Your task to perform on an android device: toggle translation in the chrome app Image 0: 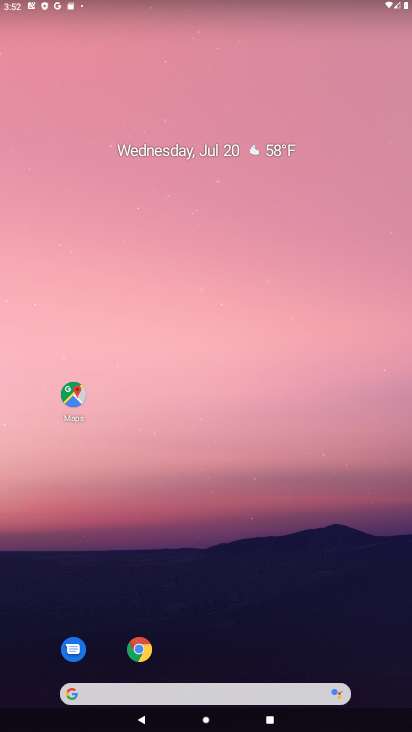
Step 0: click (143, 650)
Your task to perform on an android device: toggle translation in the chrome app Image 1: 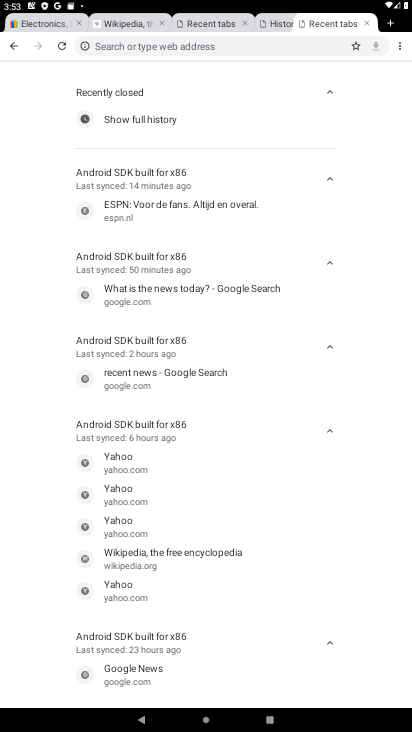
Step 1: click (401, 46)
Your task to perform on an android device: toggle translation in the chrome app Image 2: 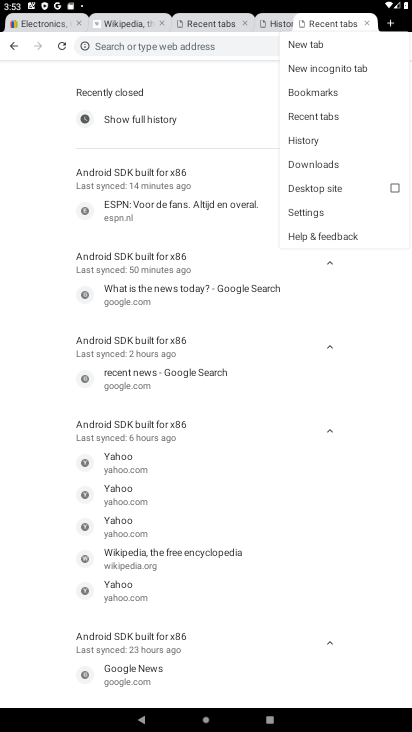
Step 2: click (309, 212)
Your task to perform on an android device: toggle translation in the chrome app Image 3: 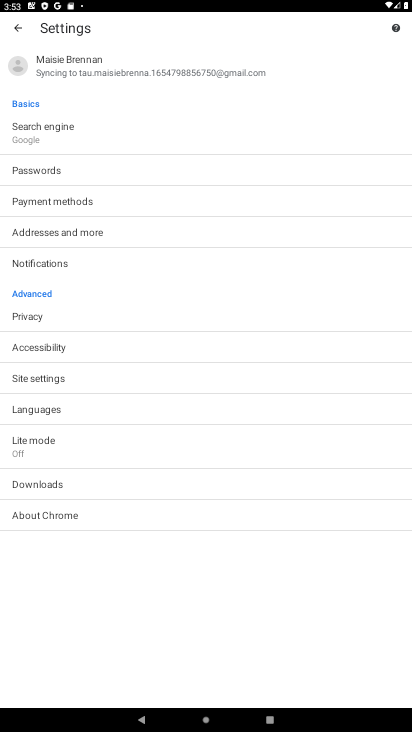
Step 3: click (36, 408)
Your task to perform on an android device: toggle translation in the chrome app Image 4: 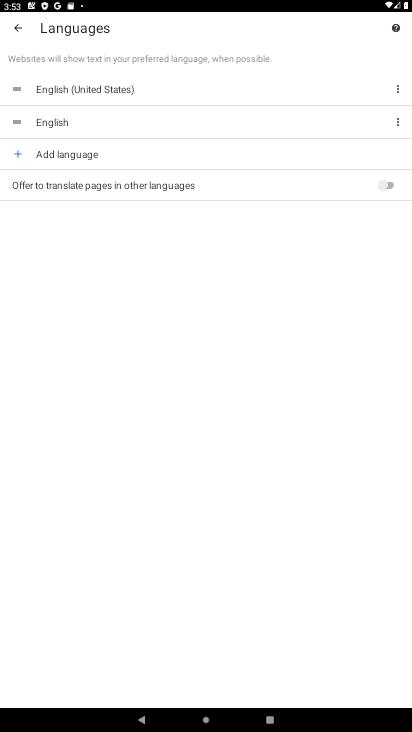
Step 4: click (391, 185)
Your task to perform on an android device: toggle translation in the chrome app Image 5: 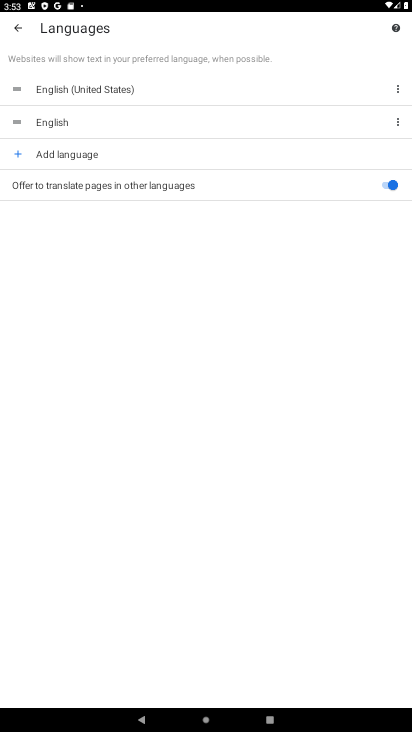
Step 5: task complete